Your task to perform on an android device: Search for Mexican restaurants on Maps Image 0: 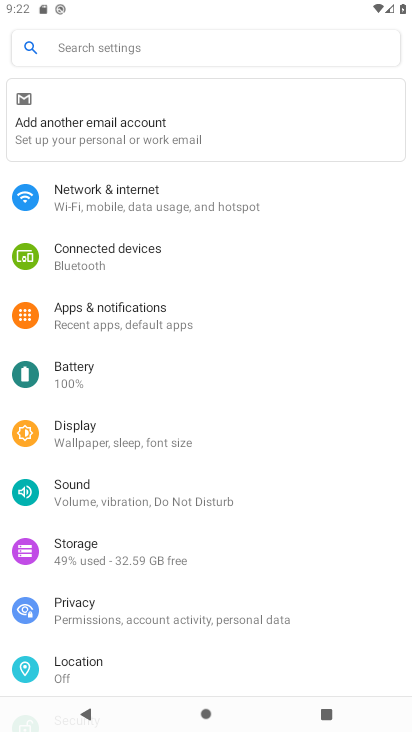
Step 0: press home button
Your task to perform on an android device: Search for Mexican restaurants on Maps Image 1: 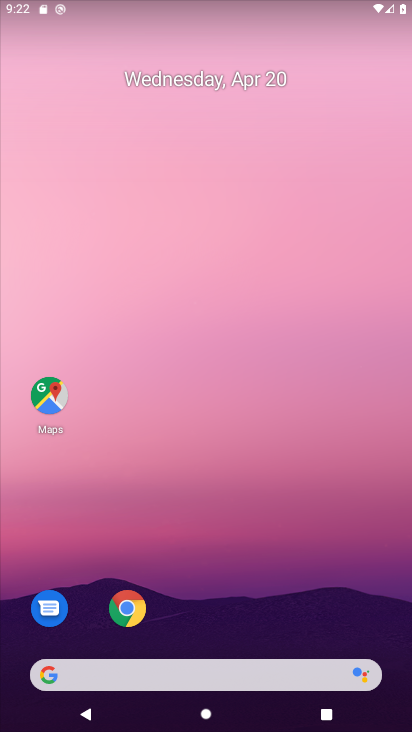
Step 1: click (41, 388)
Your task to perform on an android device: Search for Mexican restaurants on Maps Image 2: 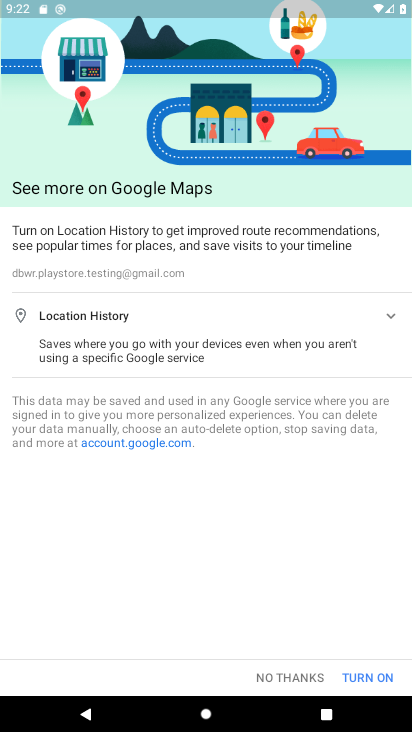
Step 2: click (348, 38)
Your task to perform on an android device: Search for Mexican restaurants on Maps Image 3: 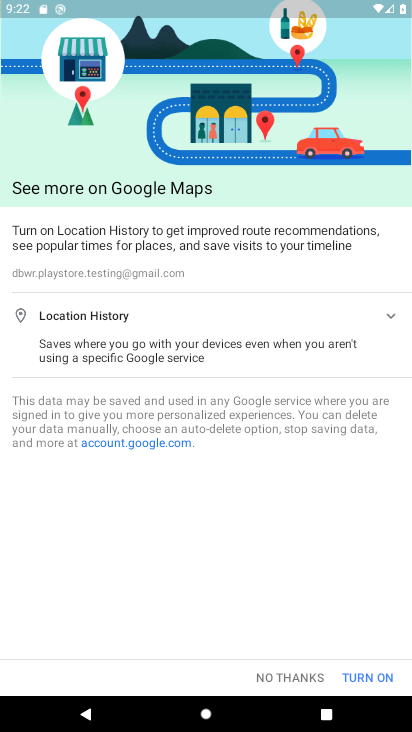
Step 3: click (287, 675)
Your task to perform on an android device: Search for Mexican restaurants on Maps Image 4: 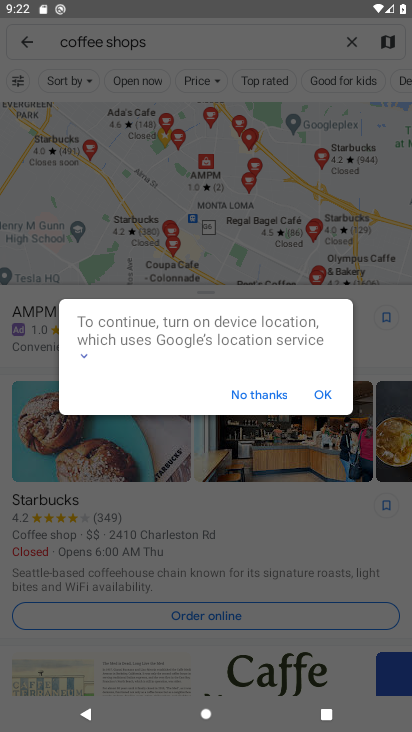
Step 4: click (324, 389)
Your task to perform on an android device: Search for Mexican restaurants on Maps Image 5: 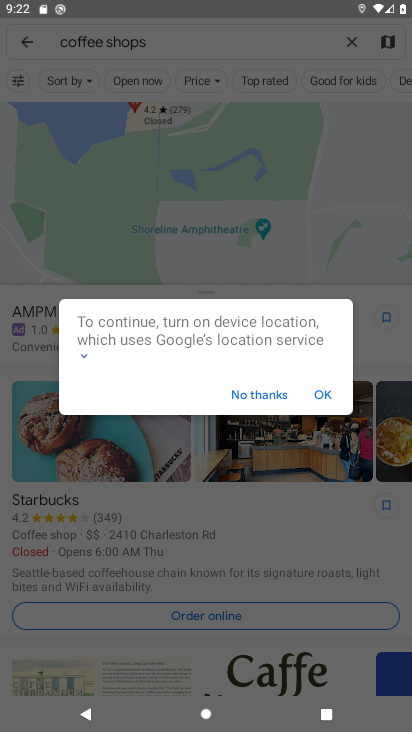
Step 5: click (323, 390)
Your task to perform on an android device: Search for Mexican restaurants on Maps Image 6: 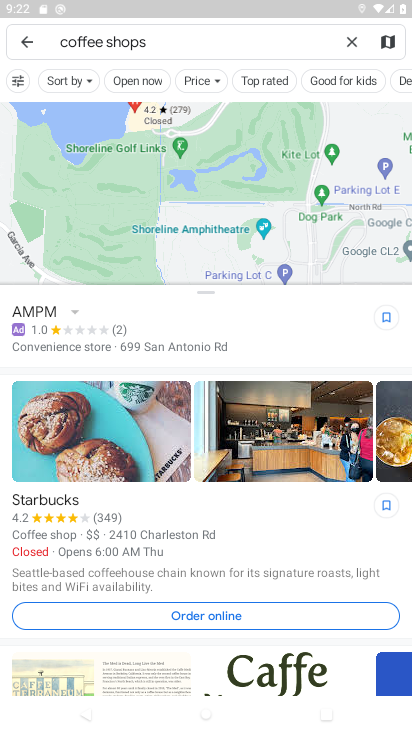
Step 6: click (86, 38)
Your task to perform on an android device: Search for Mexican restaurants on Maps Image 7: 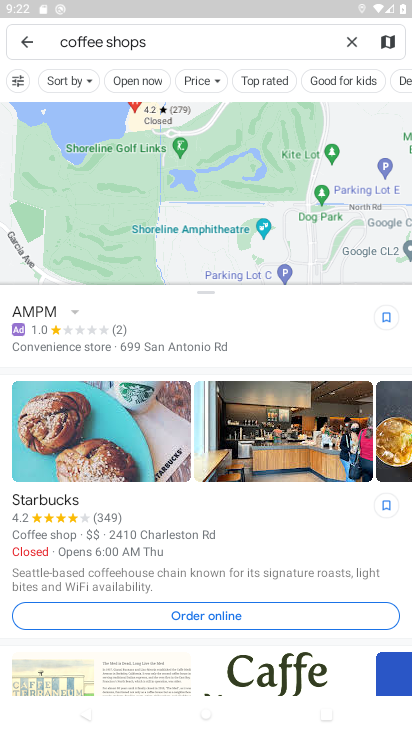
Step 7: click (86, 38)
Your task to perform on an android device: Search for Mexican restaurants on Maps Image 8: 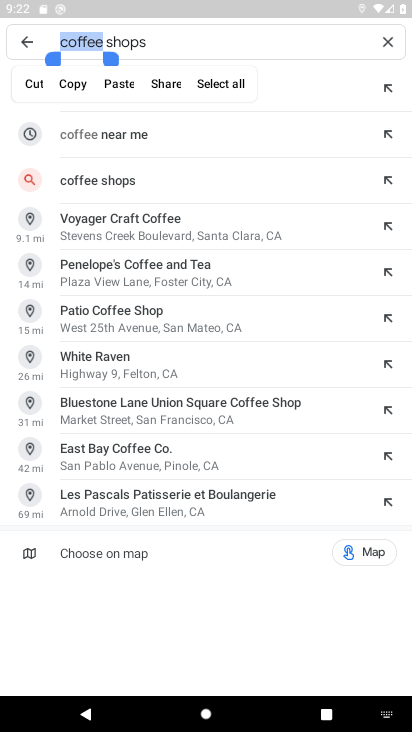
Step 8: click (389, 38)
Your task to perform on an android device: Search for Mexican restaurants on Maps Image 9: 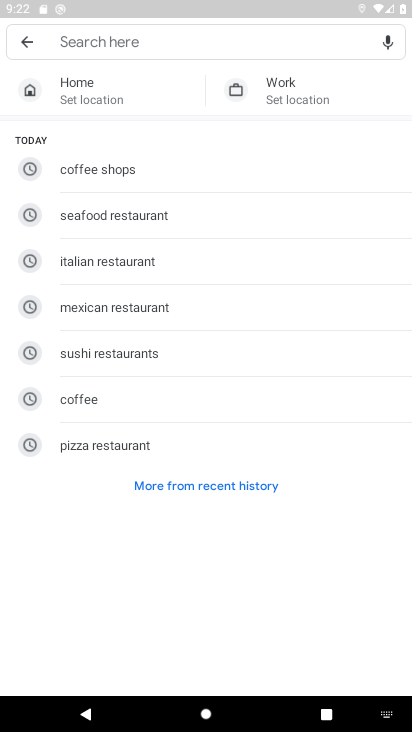
Step 9: type "mexican restaurantts"
Your task to perform on an android device: Search for Mexican restaurants on Maps Image 10: 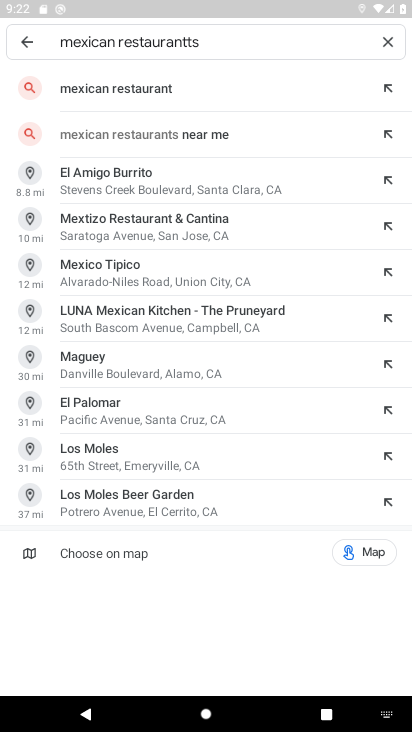
Step 10: click (152, 126)
Your task to perform on an android device: Search for Mexican restaurants on Maps Image 11: 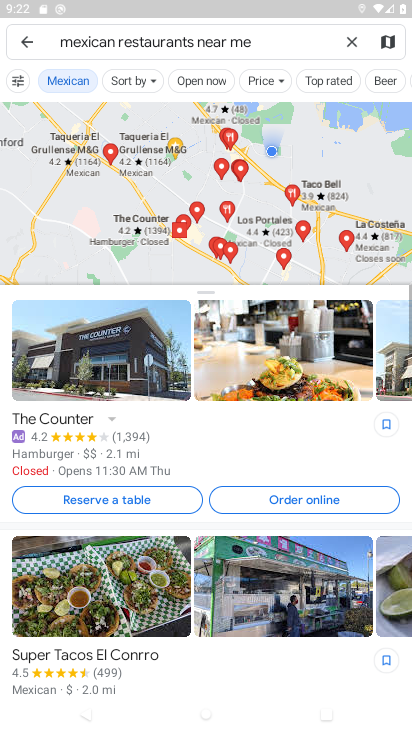
Step 11: task complete